Your task to perform on an android device: check out phone information Image 0: 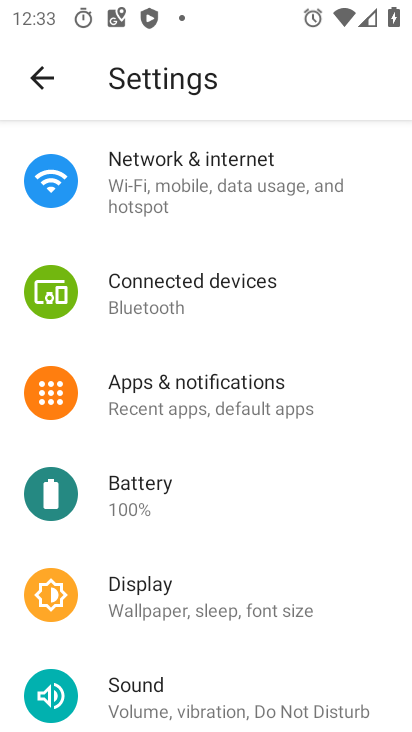
Step 0: press home button
Your task to perform on an android device: check out phone information Image 1: 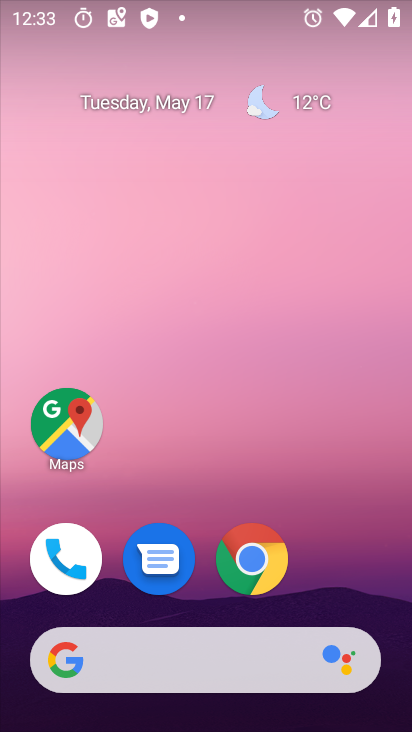
Step 1: click (341, 558)
Your task to perform on an android device: check out phone information Image 2: 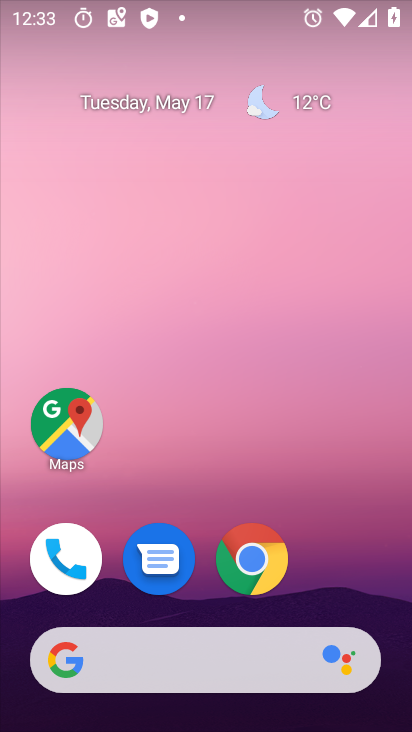
Step 2: click (64, 548)
Your task to perform on an android device: check out phone information Image 3: 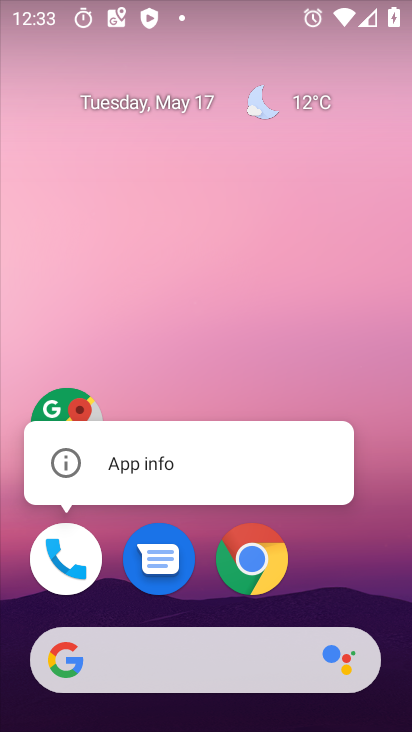
Step 3: click (148, 472)
Your task to perform on an android device: check out phone information Image 4: 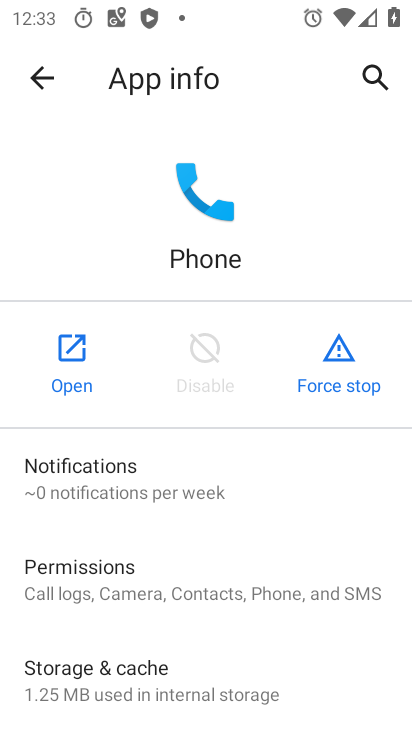
Step 4: task complete